Your task to perform on an android device: What is the recent news? Image 0: 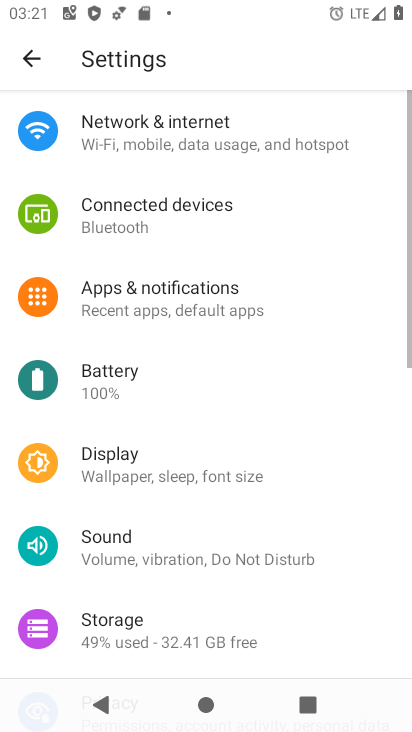
Step 0: press home button
Your task to perform on an android device: What is the recent news? Image 1: 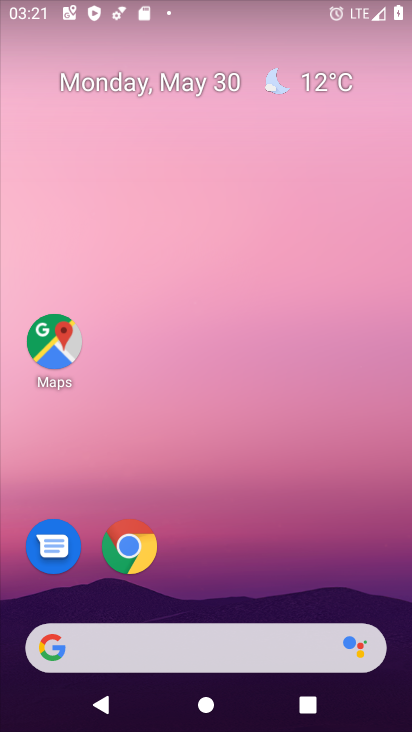
Step 1: task complete